Your task to perform on an android device: toggle location history Image 0: 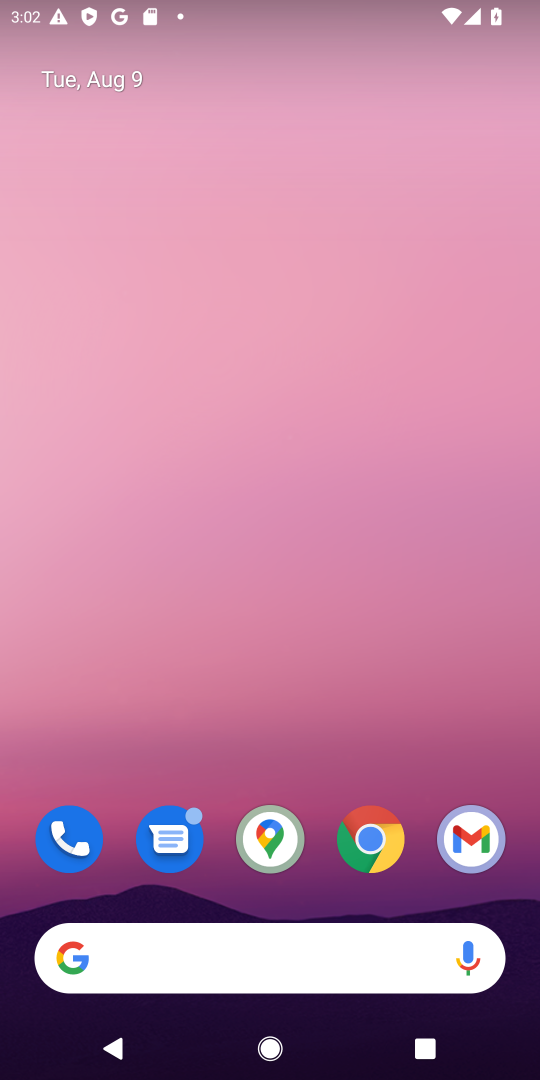
Step 0: press home button
Your task to perform on an android device: toggle location history Image 1: 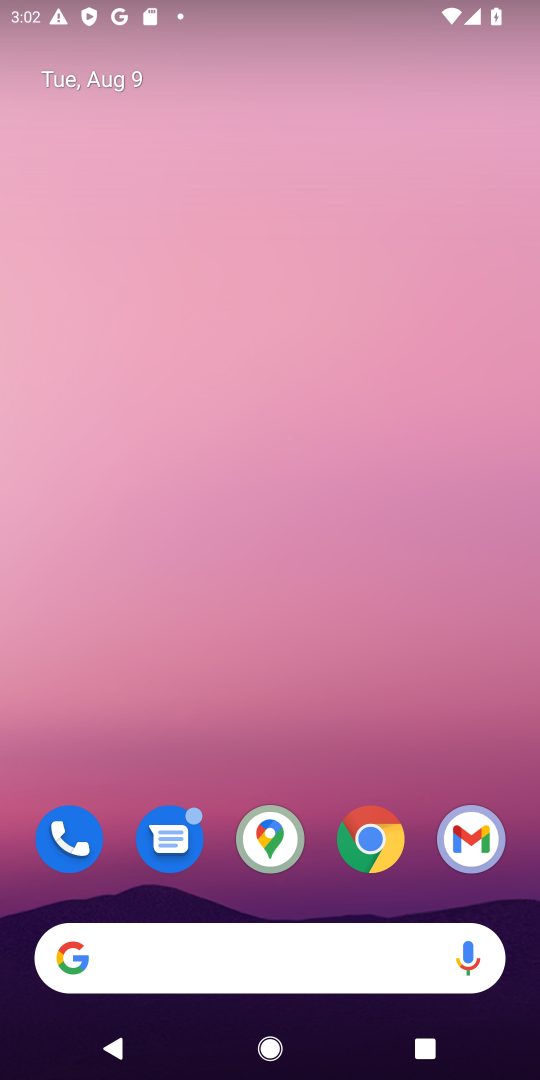
Step 1: drag from (246, 761) to (508, 358)
Your task to perform on an android device: toggle location history Image 2: 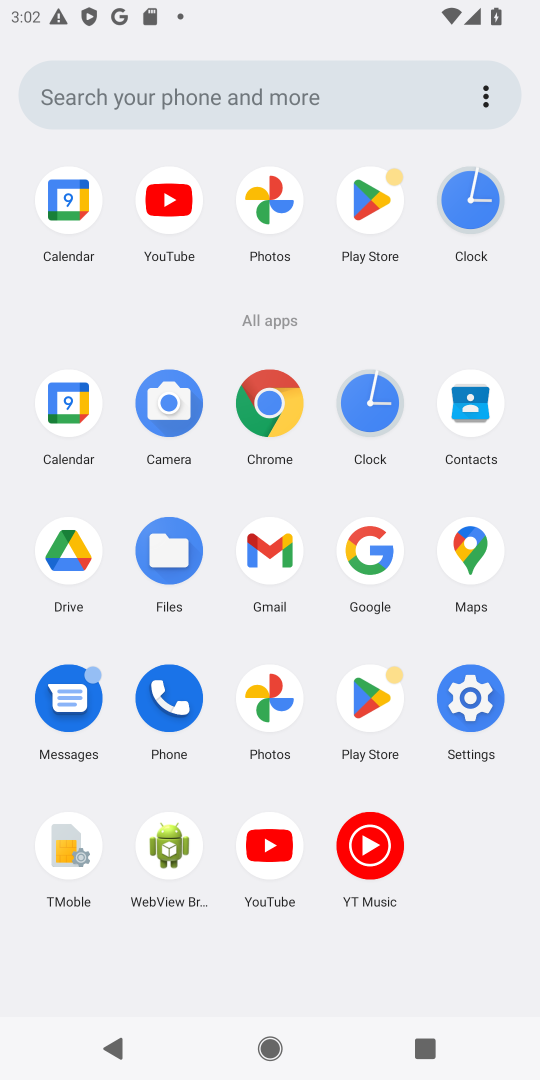
Step 2: click (460, 690)
Your task to perform on an android device: toggle location history Image 3: 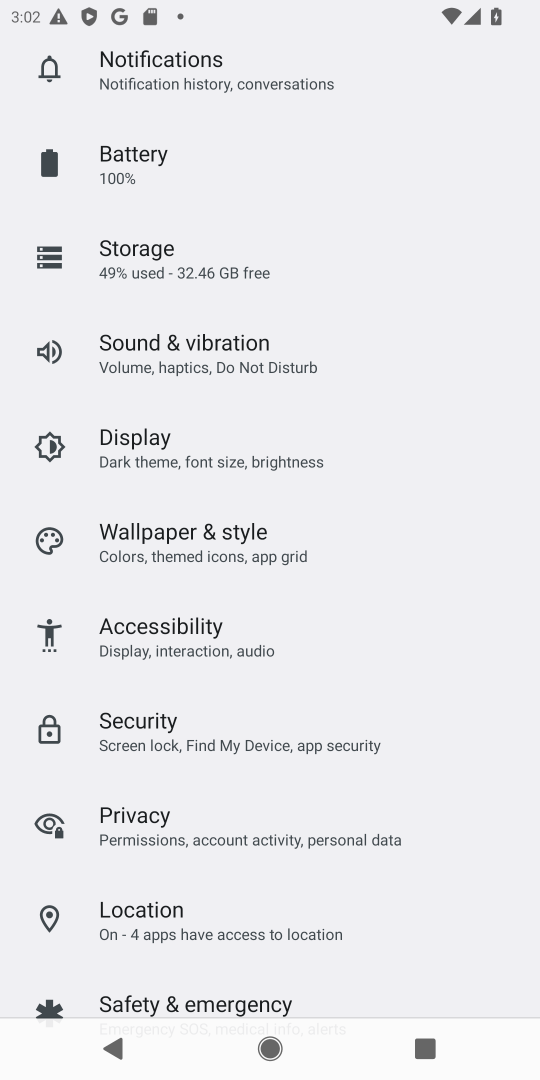
Step 3: click (177, 930)
Your task to perform on an android device: toggle location history Image 4: 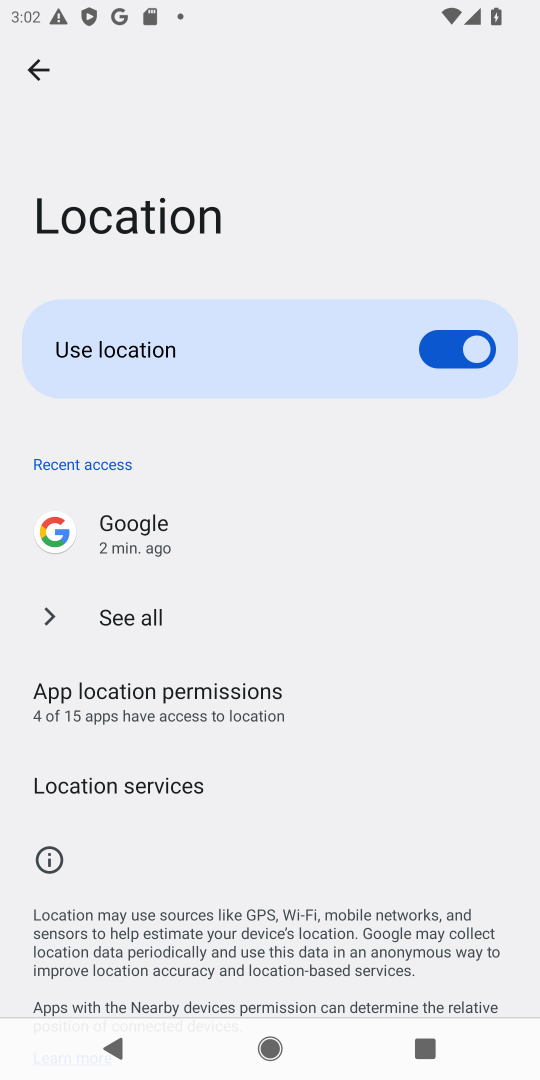
Step 4: click (80, 781)
Your task to perform on an android device: toggle location history Image 5: 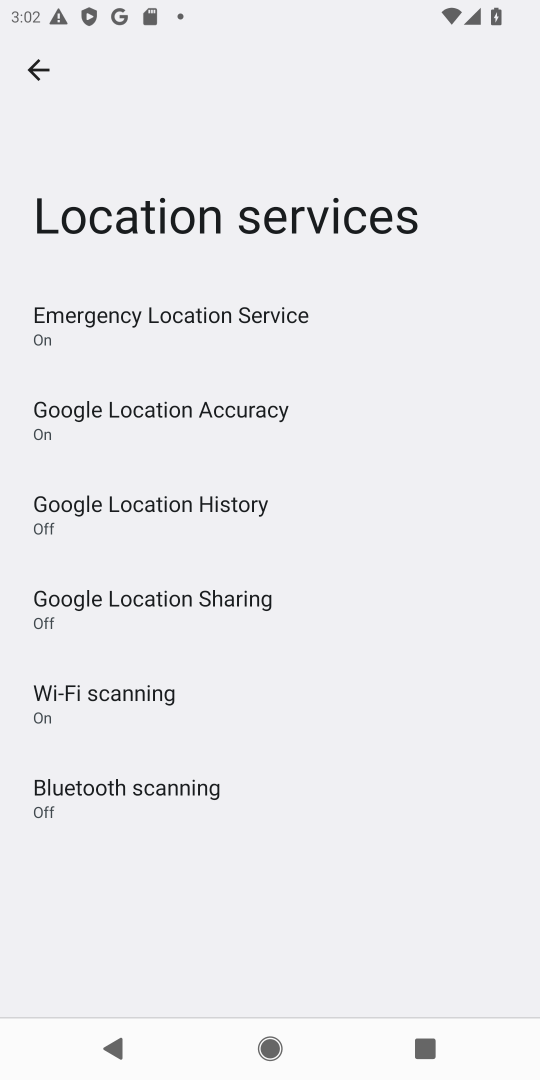
Step 5: click (151, 505)
Your task to perform on an android device: toggle location history Image 6: 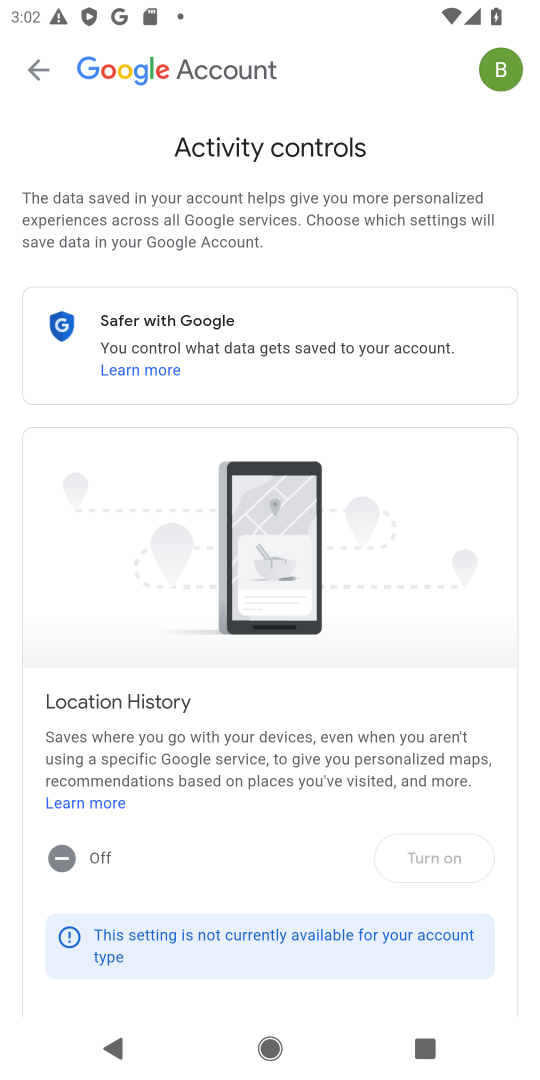
Step 6: click (435, 864)
Your task to perform on an android device: toggle location history Image 7: 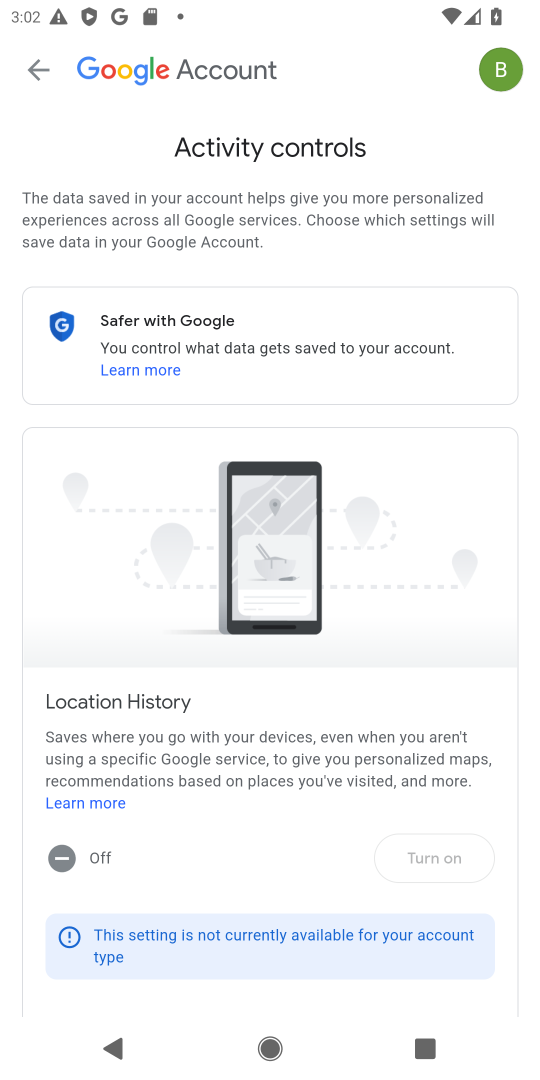
Step 7: click (435, 864)
Your task to perform on an android device: toggle location history Image 8: 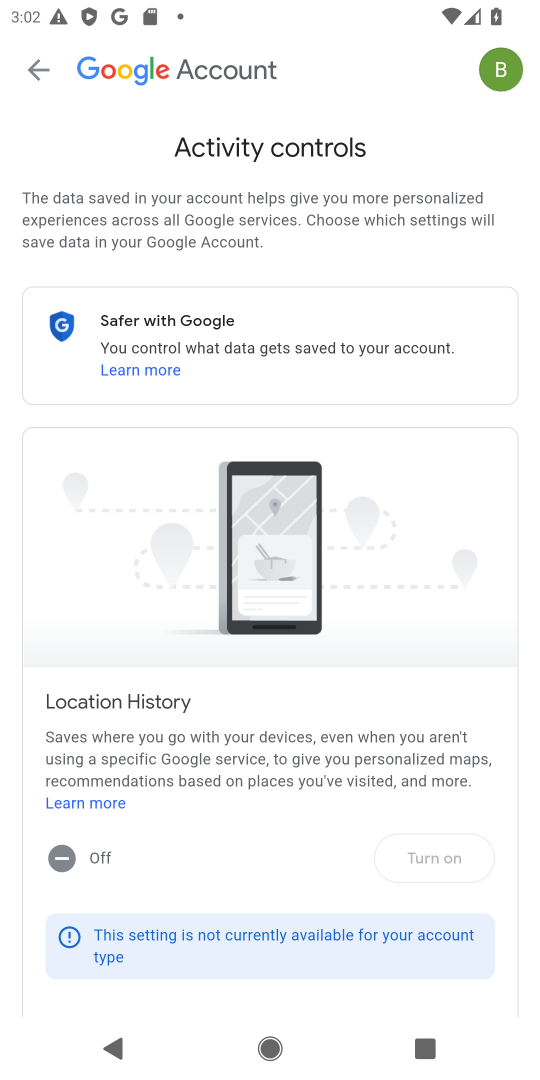
Step 8: click (97, 862)
Your task to perform on an android device: toggle location history Image 9: 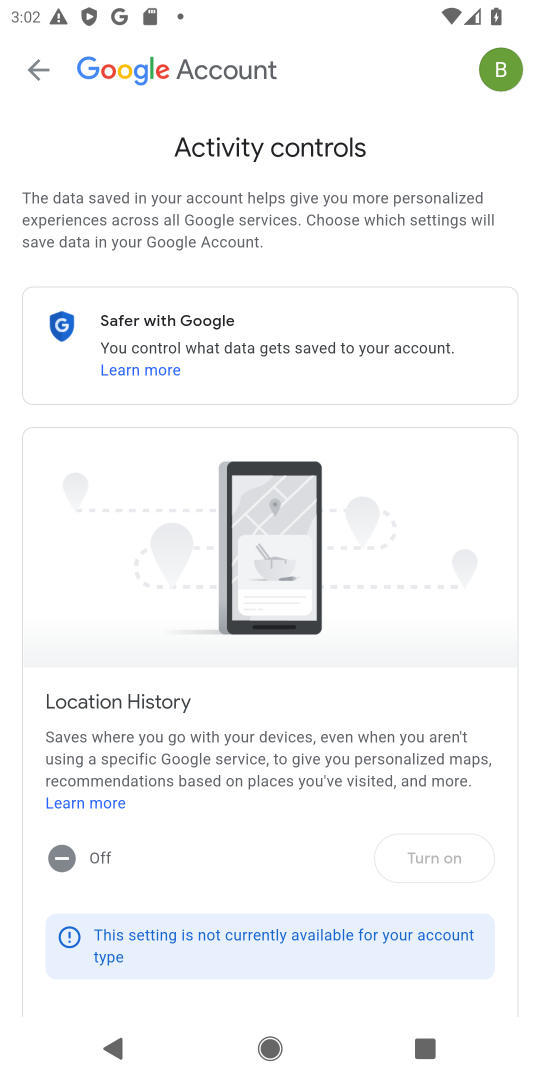
Step 9: task complete